Your task to perform on an android device: See recent photos Image 0: 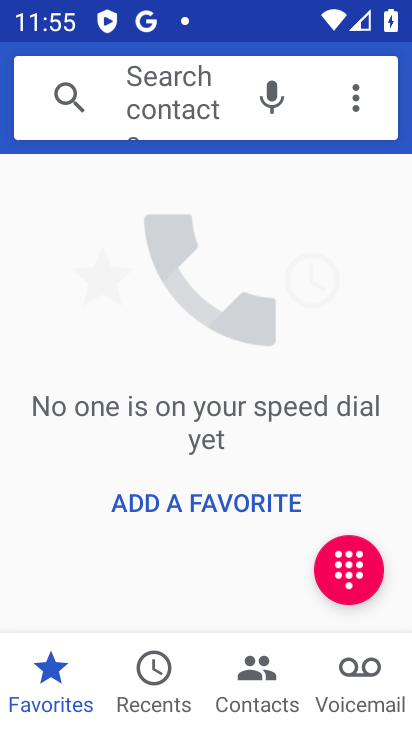
Step 0: press home button
Your task to perform on an android device: See recent photos Image 1: 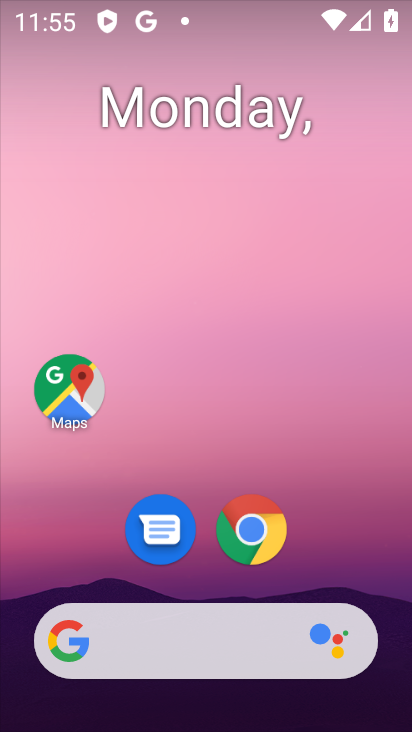
Step 1: drag from (211, 702) to (212, 103)
Your task to perform on an android device: See recent photos Image 2: 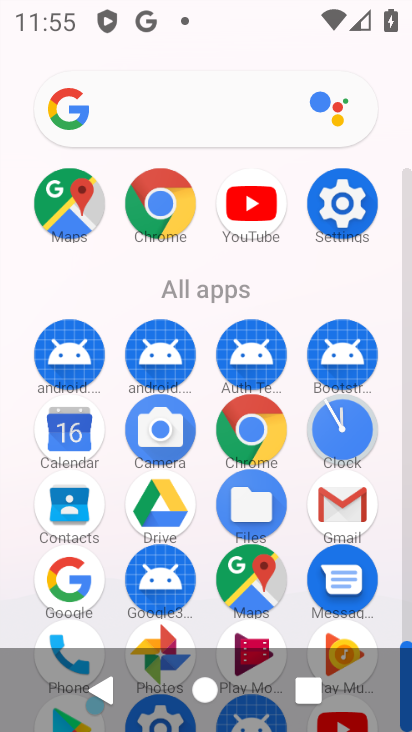
Step 2: drag from (213, 624) to (215, 173)
Your task to perform on an android device: See recent photos Image 3: 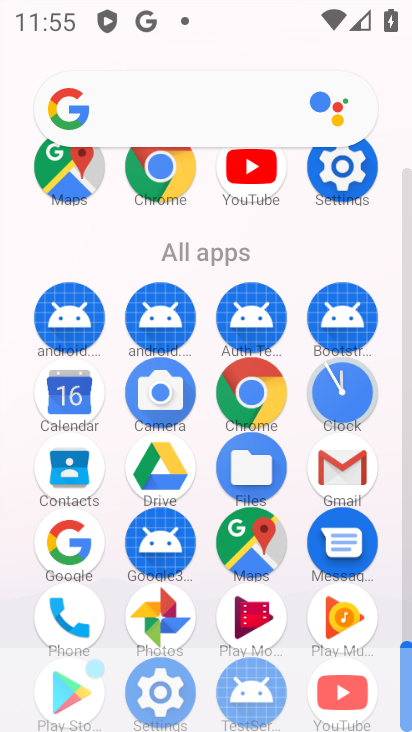
Step 3: click (166, 620)
Your task to perform on an android device: See recent photos Image 4: 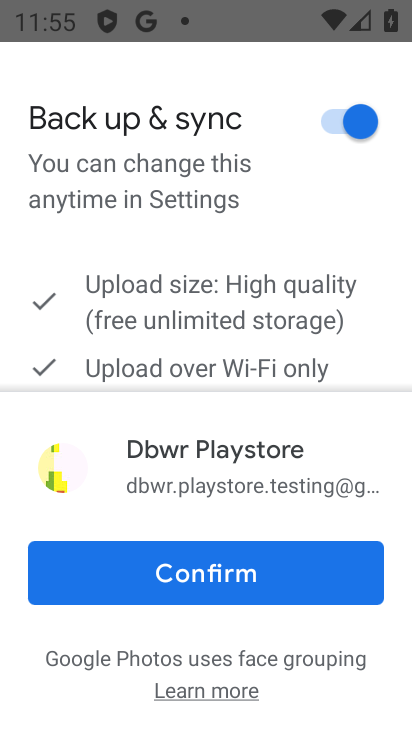
Step 4: click (206, 565)
Your task to perform on an android device: See recent photos Image 5: 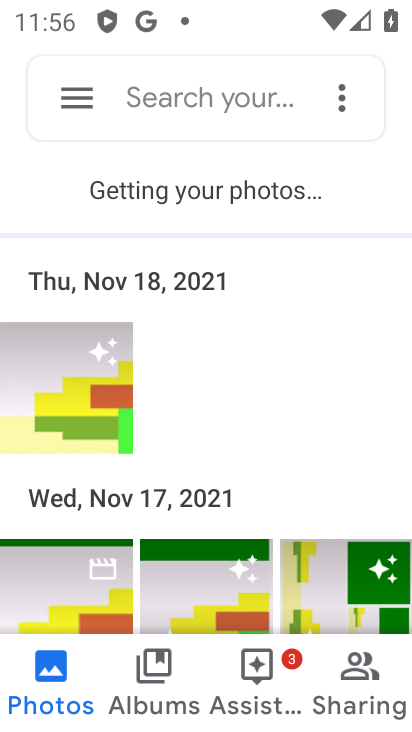
Step 5: click (73, 397)
Your task to perform on an android device: See recent photos Image 6: 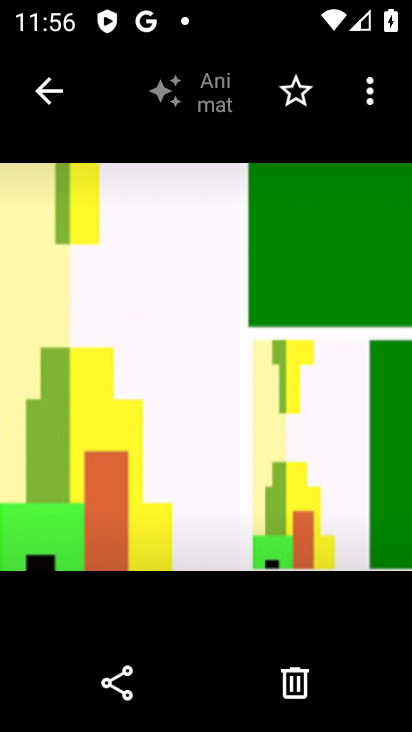
Step 6: task complete